Your task to perform on an android device: turn on javascript in the chrome app Image 0: 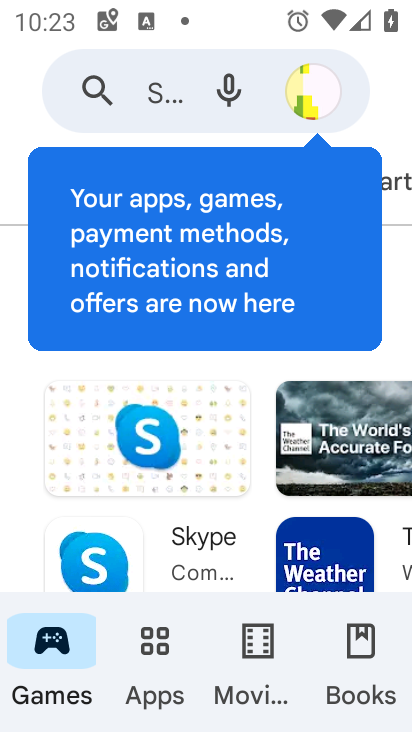
Step 0: press home button
Your task to perform on an android device: turn on javascript in the chrome app Image 1: 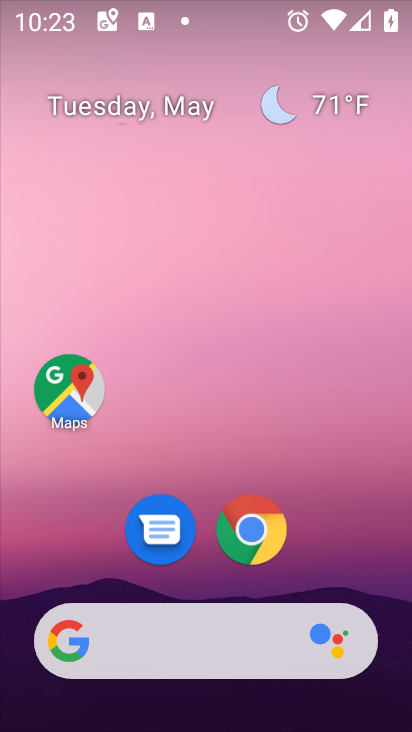
Step 1: click (244, 551)
Your task to perform on an android device: turn on javascript in the chrome app Image 2: 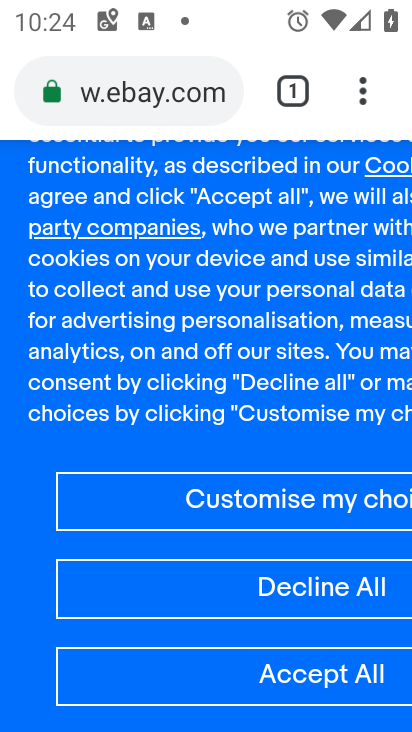
Step 2: click (357, 96)
Your task to perform on an android device: turn on javascript in the chrome app Image 3: 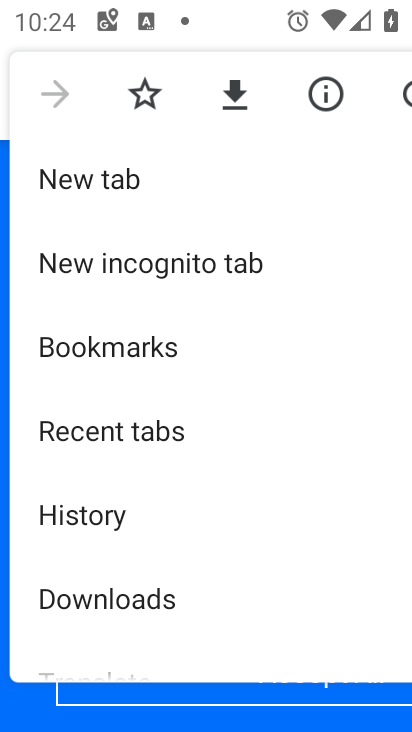
Step 3: drag from (197, 530) to (180, 299)
Your task to perform on an android device: turn on javascript in the chrome app Image 4: 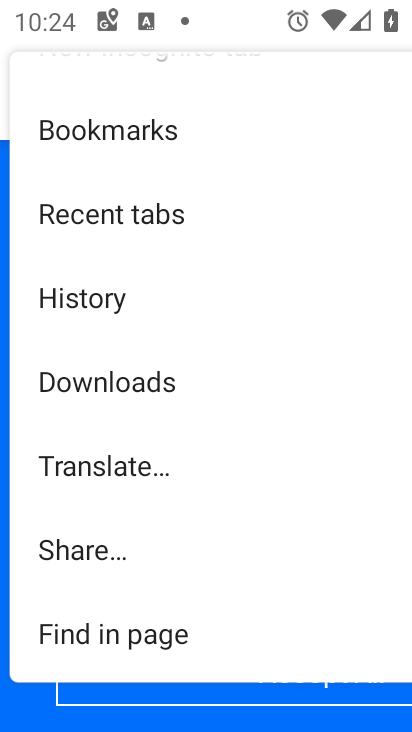
Step 4: drag from (130, 584) to (167, 158)
Your task to perform on an android device: turn on javascript in the chrome app Image 5: 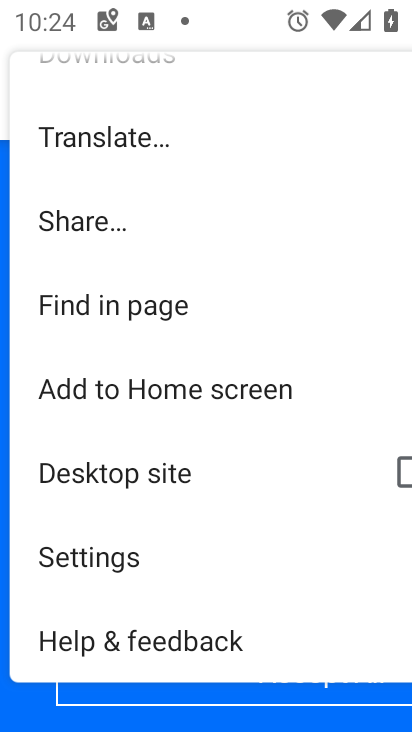
Step 5: click (110, 568)
Your task to perform on an android device: turn on javascript in the chrome app Image 6: 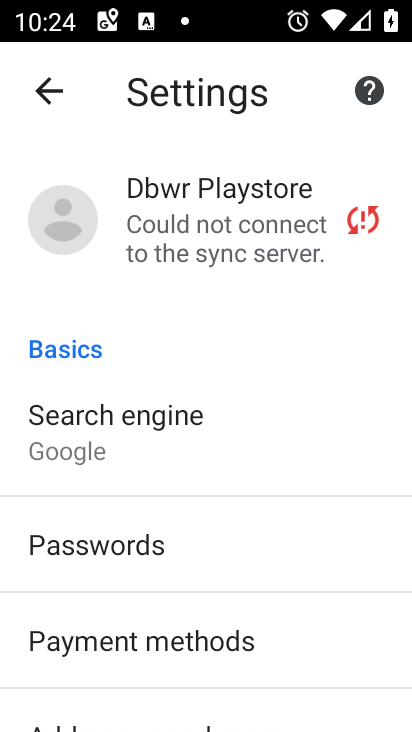
Step 6: drag from (110, 568) to (158, 255)
Your task to perform on an android device: turn on javascript in the chrome app Image 7: 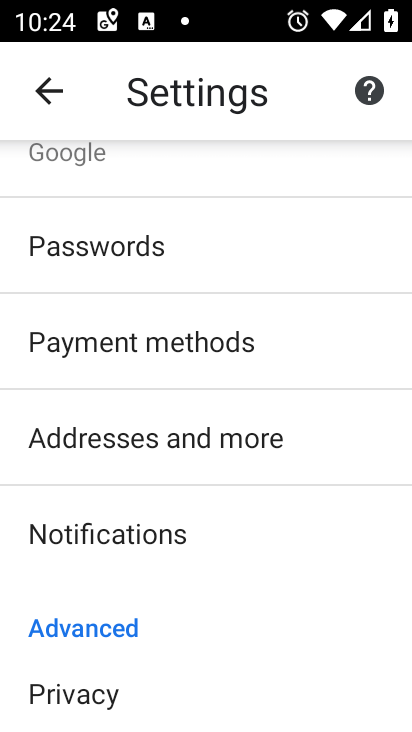
Step 7: drag from (159, 477) to (174, 295)
Your task to perform on an android device: turn on javascript in the chrome app Image 8: 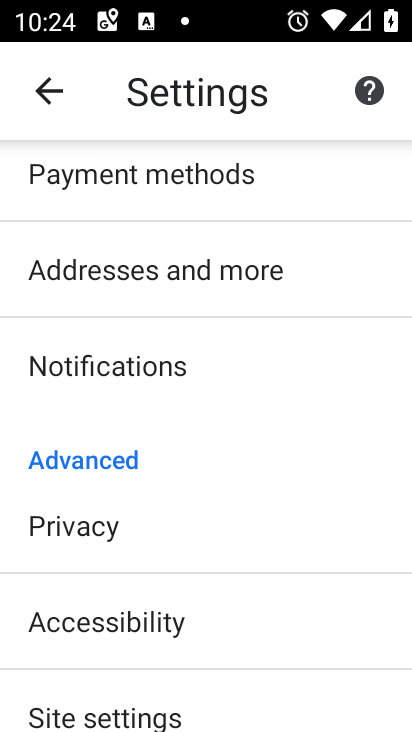
Step 8: drag from (205, 548) to (223, 372)
Your task to perform on an android device: turn on javascript in the chrome app Image 9: 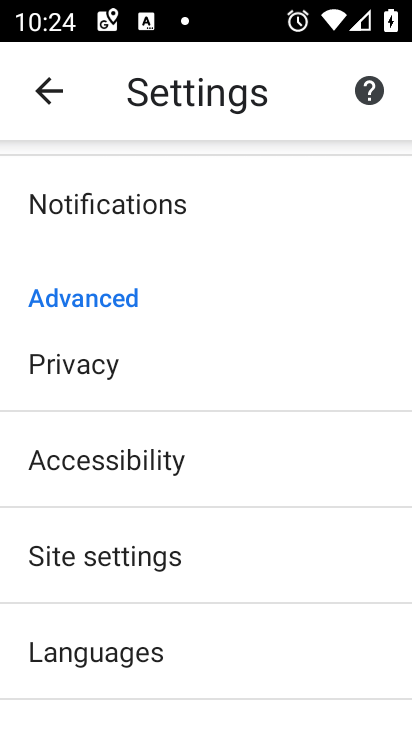
Step 9: click (122, 555)
Your task to perform on an android device: turn on javascript in the chrome app Image 10: 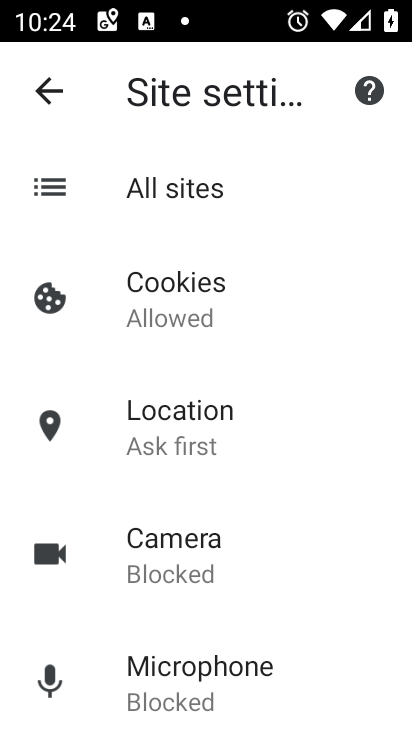
Step 10: drag from (207, 585) to (171, 317)
Your task to perform on an android device: turn on javascript in the chrome app Image 11: 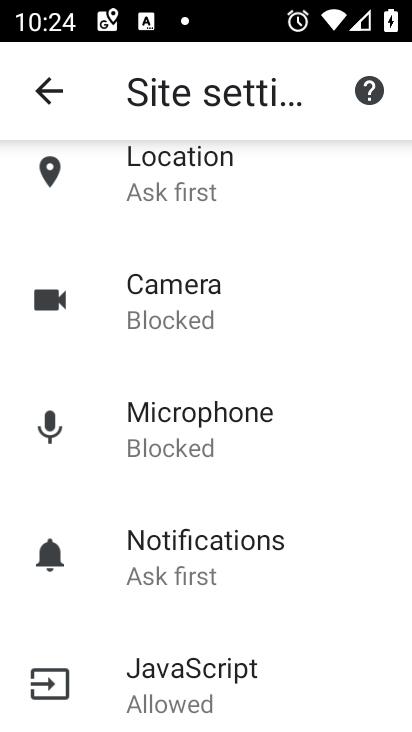
Step 11: drag from (200, 594) to (196, 445)
Your task to perform on an android device: turn on javascript in the chrome app Image 12: 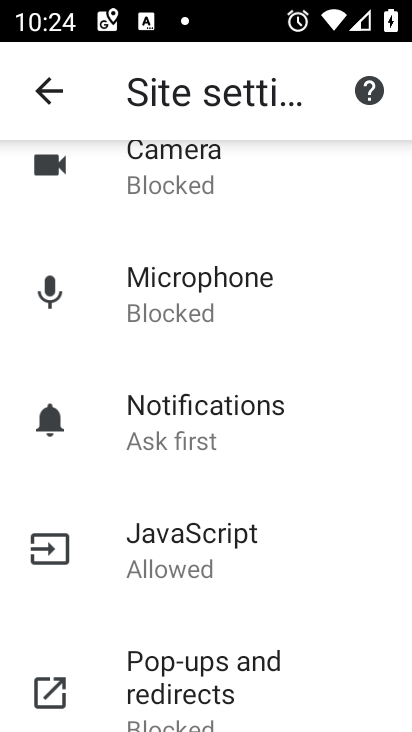
Step 12: click (196, 557)
Your task to perform on an android device: turn on javascript in the chrome app Image 13: 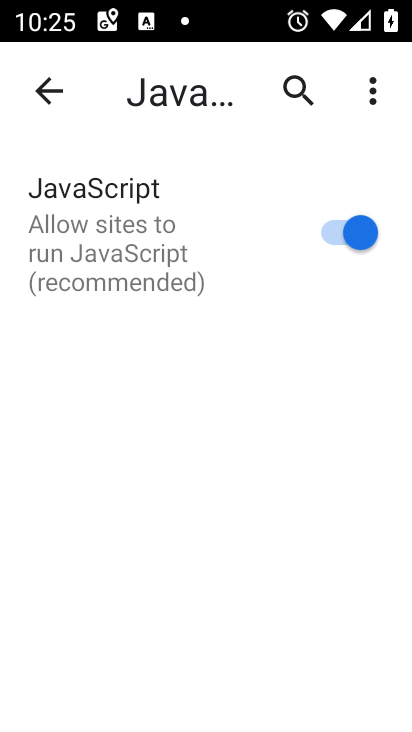
Step 13: task complete